Your task to perform on an android device: Toggle the flashlight Image 0: 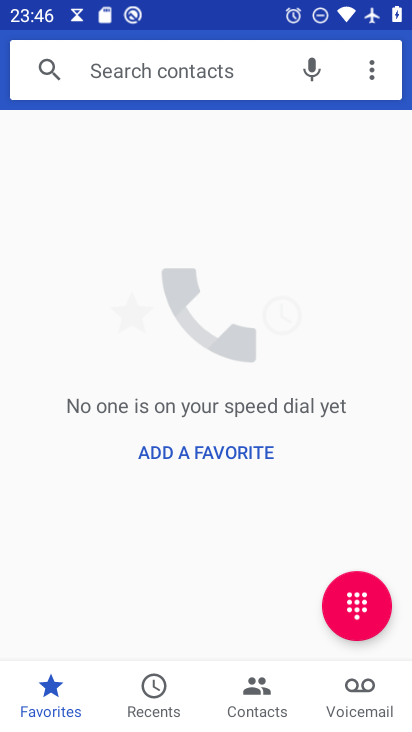
Step 0: press home button
Your task to perform on an android device: Toggle the flashlight Image 1: 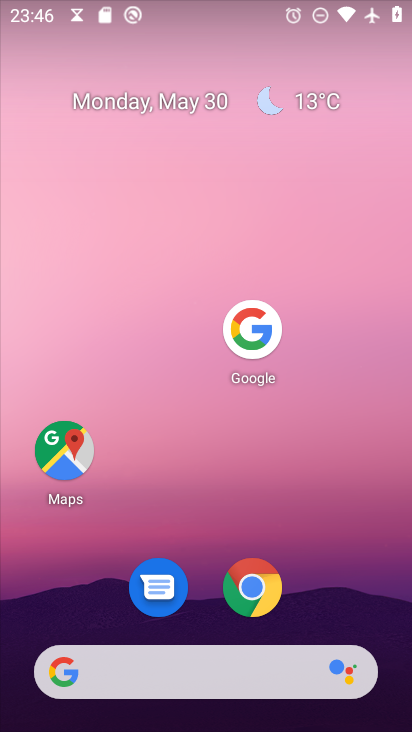
Step 1: task complete